Your task to perform on an android device: manage bookmarks in the chrome app Image 0: 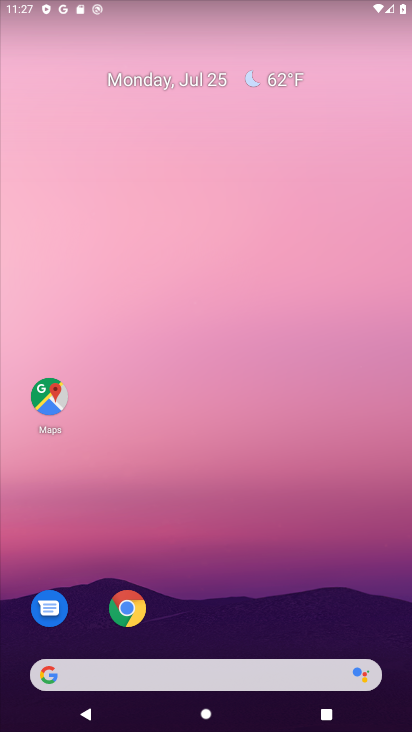
Step 0: click (201, 619)
Your task to perform on an android device: manage bookmarks in the chrome app Image 1: 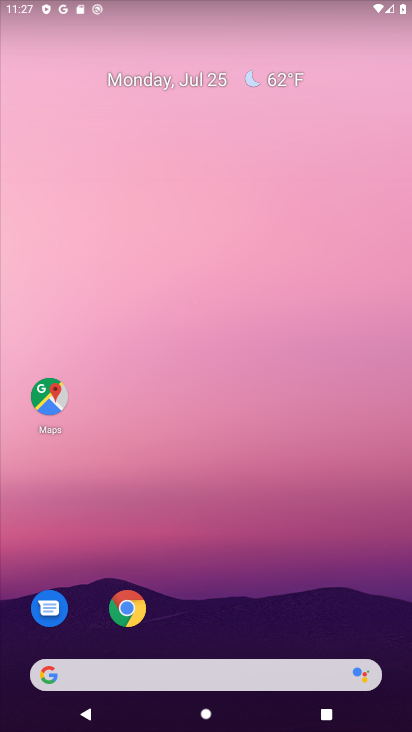
Step 1: click (131, 607)
Your task to perform on an android device: manage bookmarks in the chrome app Image 2: 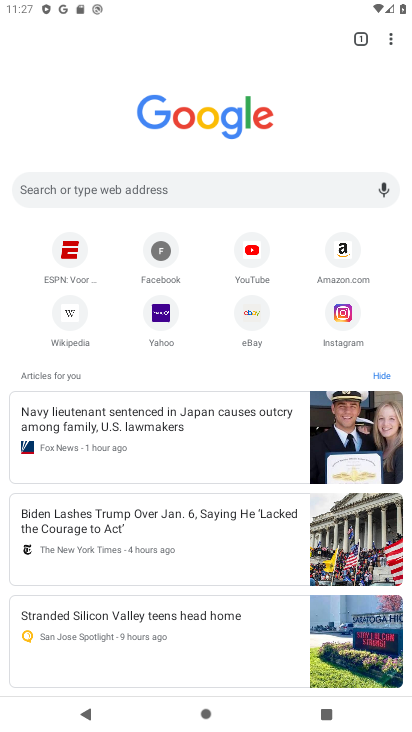
Step 2: click (399, 43)
Your task to perform on an android device: manage bookmarks in the chrome app Image 3: 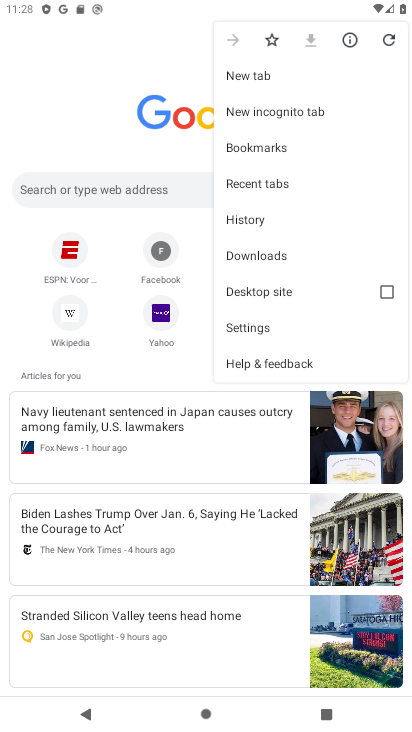
Step 3: click (269, 143)
Your task to perform on an android device: manage bookmarks in the chrome app Image 4: 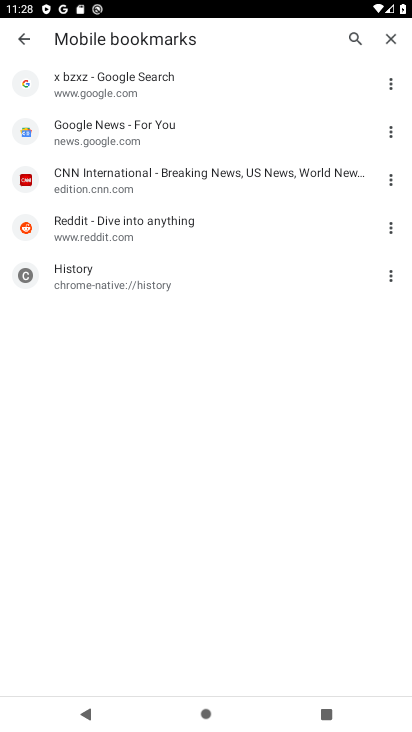
Step 4: task complete